Your task to perform on an android device: Go to Android settings Image 0: 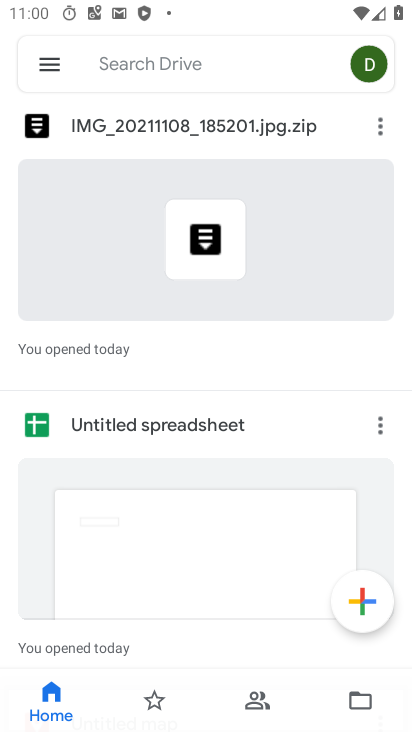
Step 0: press back button
Your task to perform on an android device: Go to Android settings Image 1: 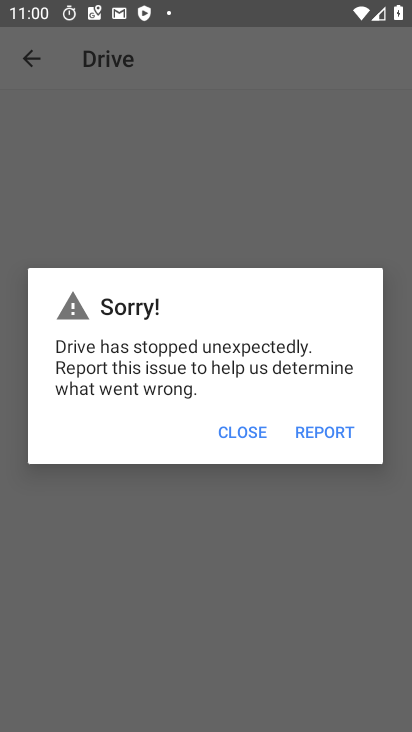
Step 1: press back button
Your task to perform on an android device: Go to Android settings Image 2: 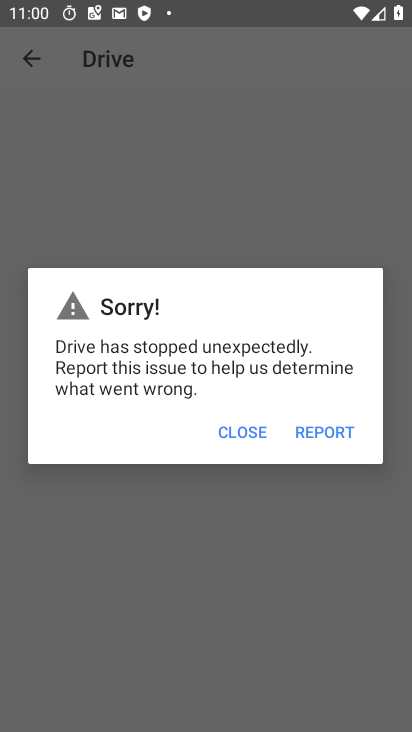
Step 2: press home button
Your task to perform on an android device: Go to Android settings Image 3: 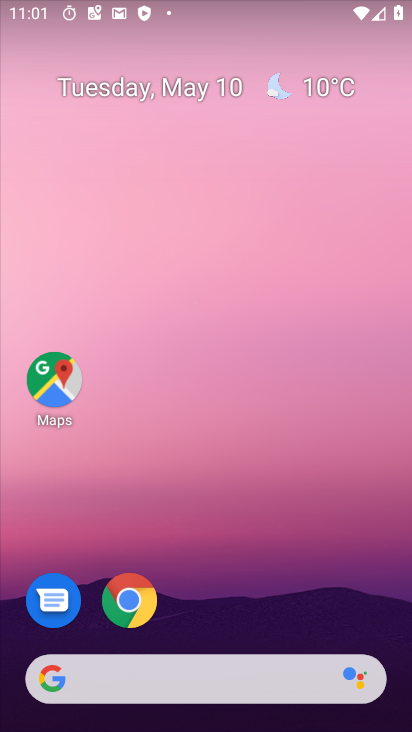
Step 3: drag from (225, 582) to (222, 5)
Your task to perform on an android device: Go to Android settings Image 4: 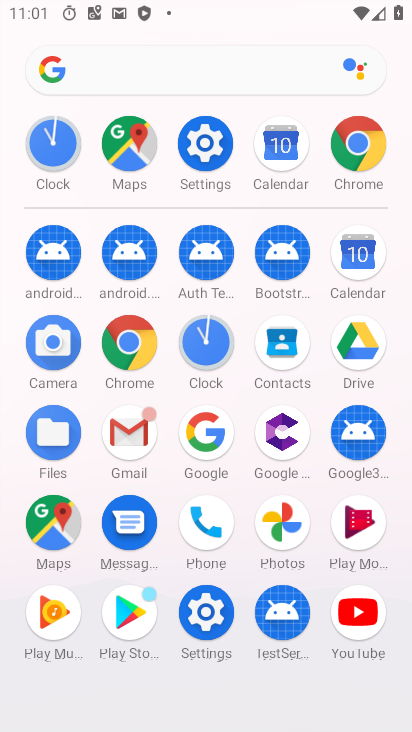
Step 4: click (205, 142)
Your task to perform on an android device: Go to Android settings Image 5: 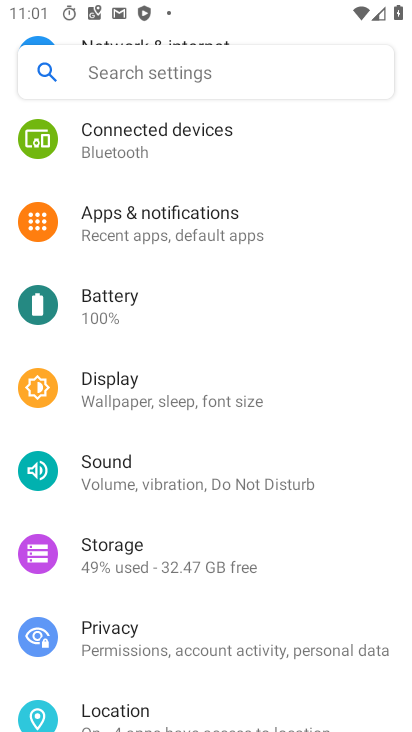
Step 5: task complete